Your task to perform on an android device: toggle location history Image 0: 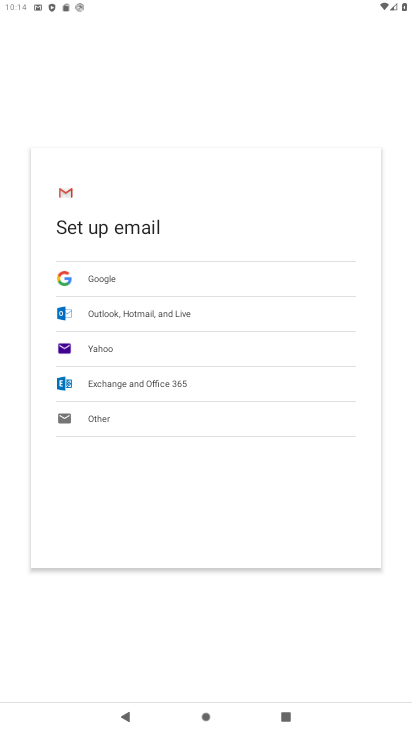
Step 0: press home button
Your task to perform on an android device: toggle location history Image 1: 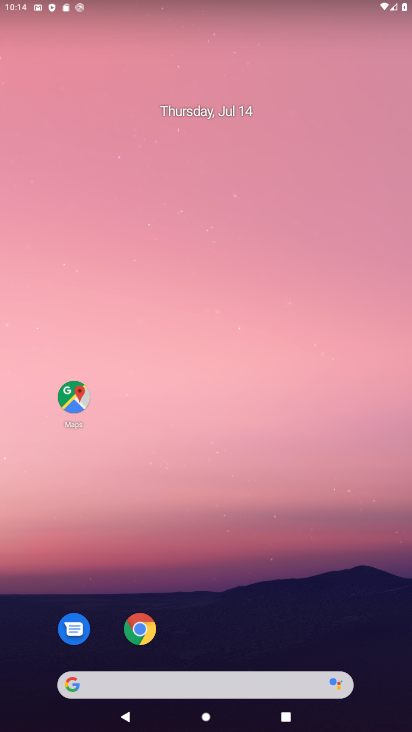
Step 1: drag from (221, 607) to (257, 146)
Your task to perform on an android device: toggle location history Image 2: 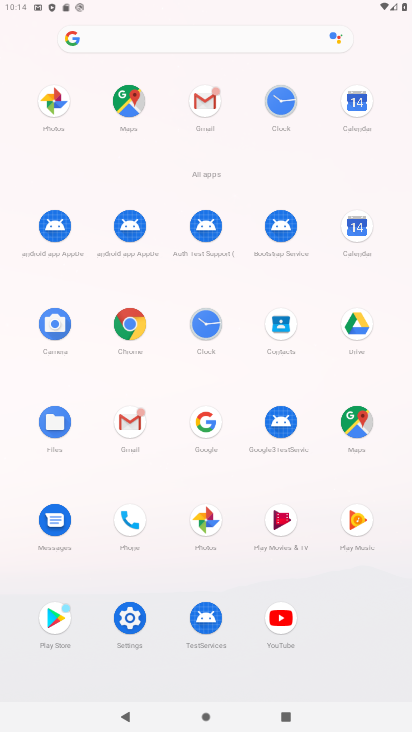
Step 2: click (130, 618)
Your task to perform on an android device: toggle location history Image 3: 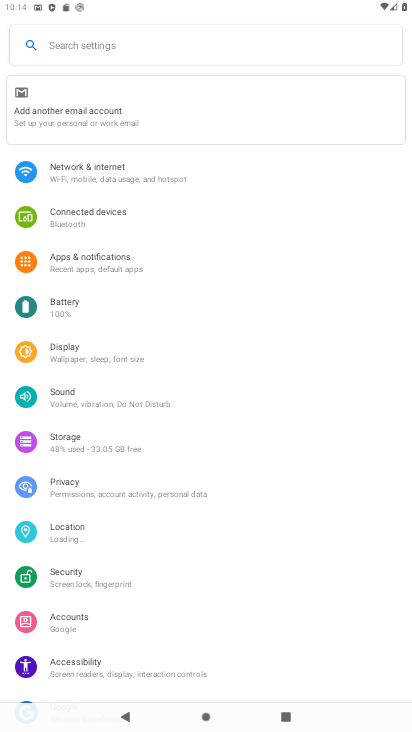
Step 3: click (107, 533)
Your task to perform on an android device: toggle location history Image 4: 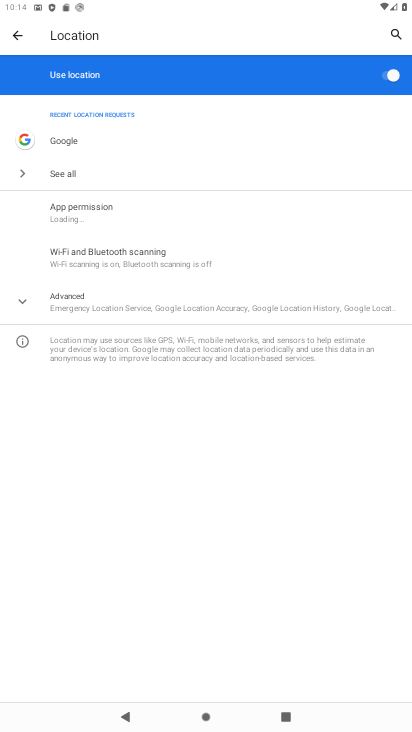
Step 4: click (121, 311)
Your task to perform on an android device: toggle location history Image 5: 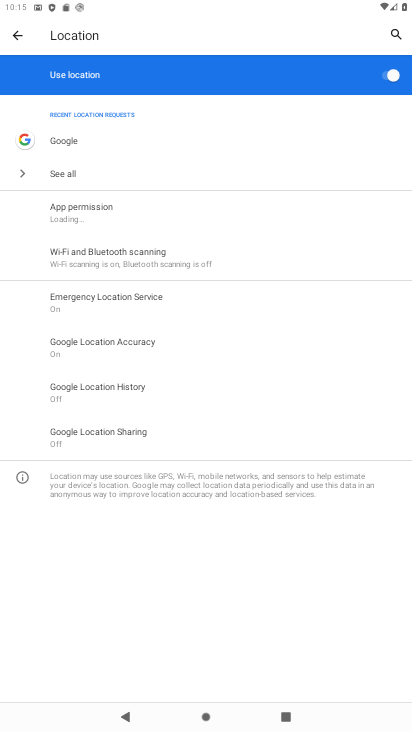
Step 5: click (99, 383)
Your task to perform on an android device: toggle location history Image 6: 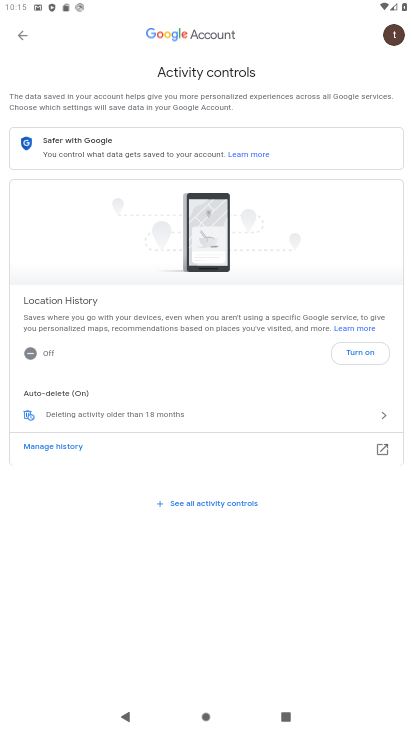
Step 6: click (359, 353)
Your task to perform on an android device: toggle location history Image 7: 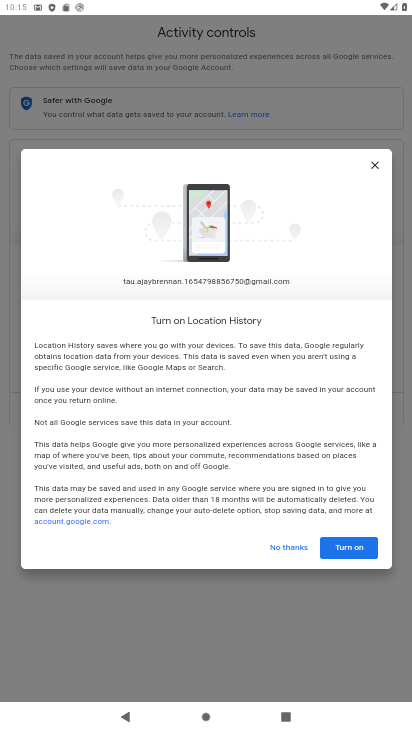
Step 7: click (362, 549)
Your task to perform on an android device: toggle location history Image 8: 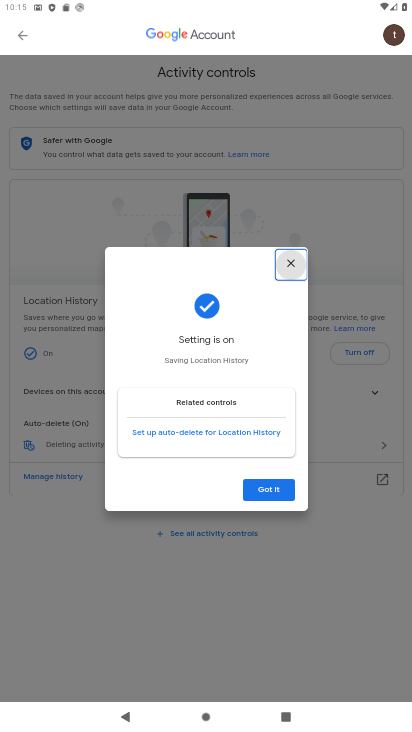
Step 8: click (267, 493)
Your task to perform on an android device: toggle location history Image 9: 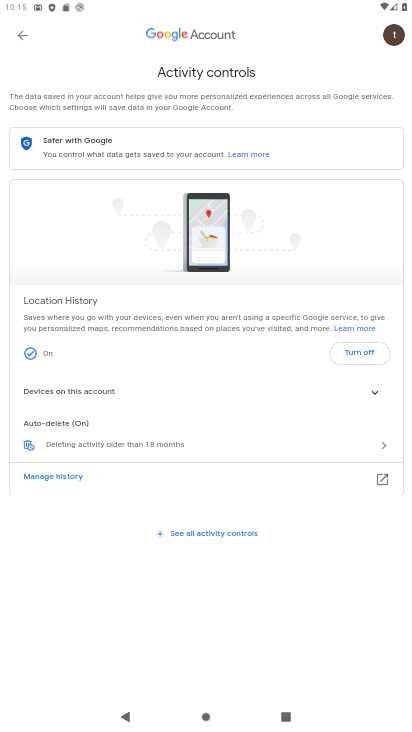
Step 9: task complete